Your task to perform on an android device: toggle pop-ups in chrome Image 0: 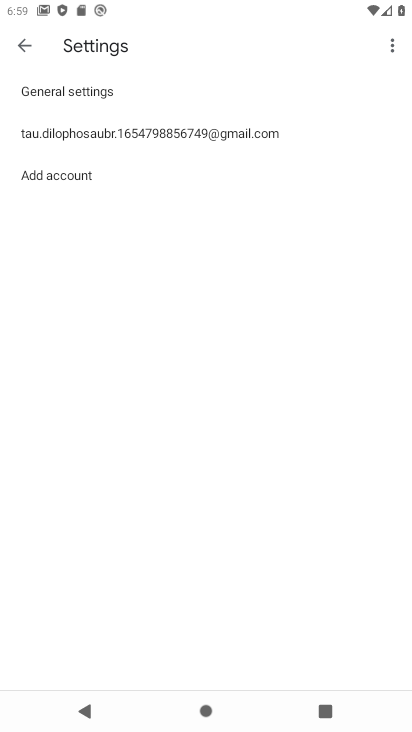
Step 0: press home button
Your task to perform on an android device: toggle pop-ups in chrome Image 1: 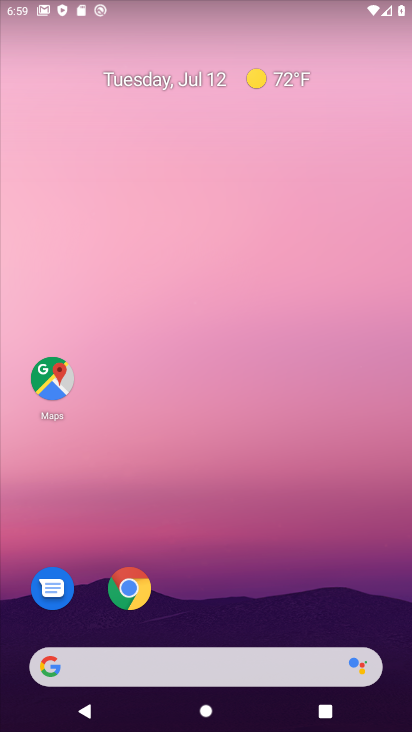
Step 1: drag from (285, 618) to (360, 45)
Your task to perform on an android device: toggle pop-ups in chrome Image 2: 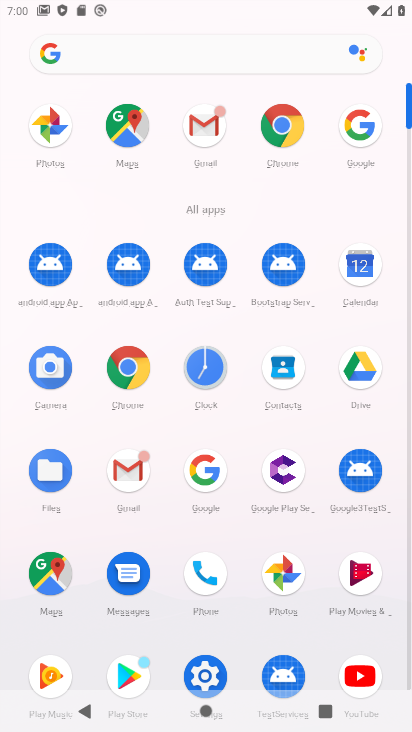
Step 2: click (295, 140)
Your task to perform on an android device: toggle pop-ups in chrome Image 3: 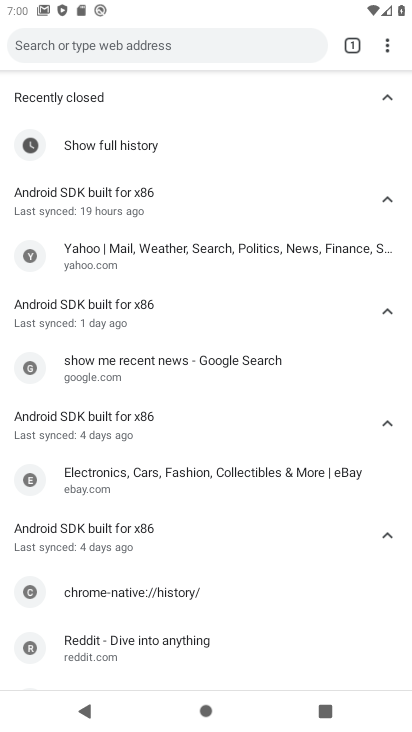
Step 3: drag from (389, 45) to (220, 400)
Your task to perform on an android device: toggle pop-ups in chrome Image 4: 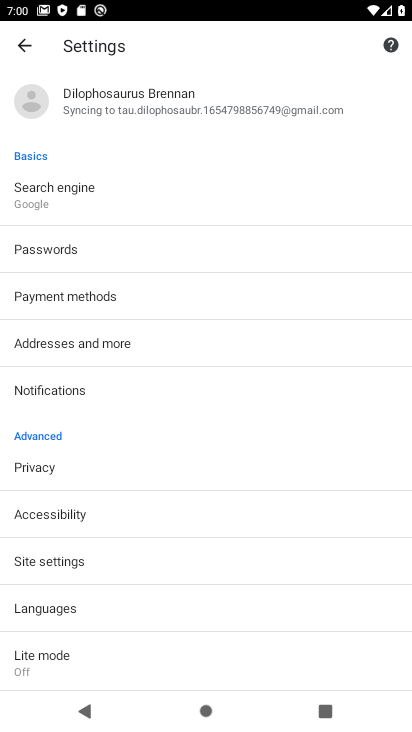
Step 4: click (56, 564)
Your task to perform on an android device: toggle pop-ups in chrome Image 5: 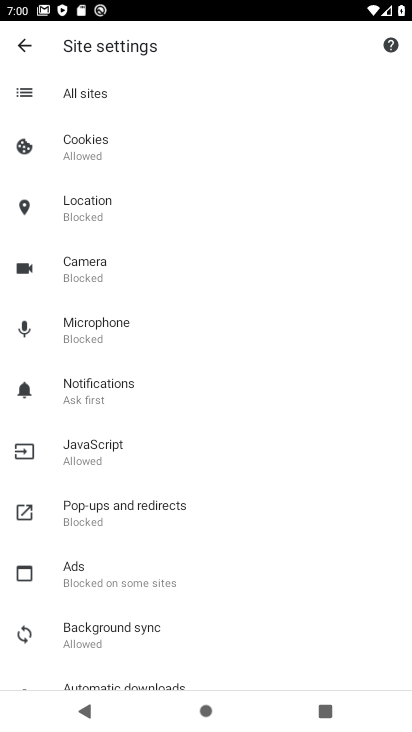
Step 5: click (88, 517)
Your task to perform on an android device: toggle pop-ups in chrome Image 6: 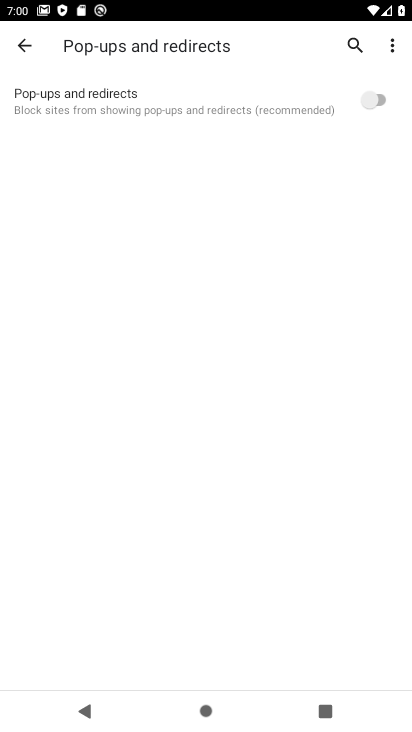
Step 6: click (378, 95)
Your task to perform on an android device: toggle pop-ups in chrome Image 7: 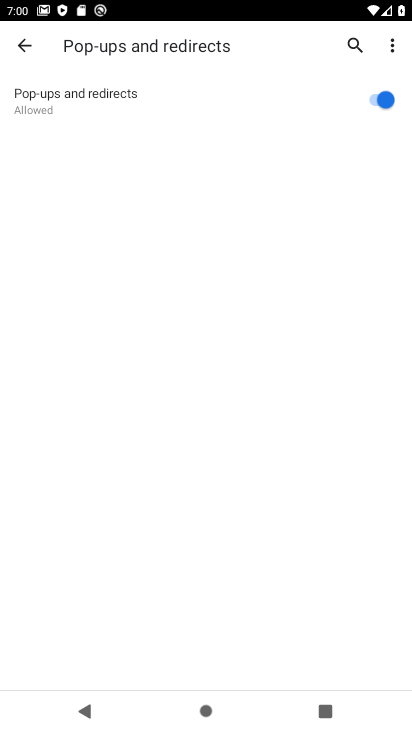
Step 7: task complete